Your task to perform on an android device: change notification settings in the gmail app Image 0: 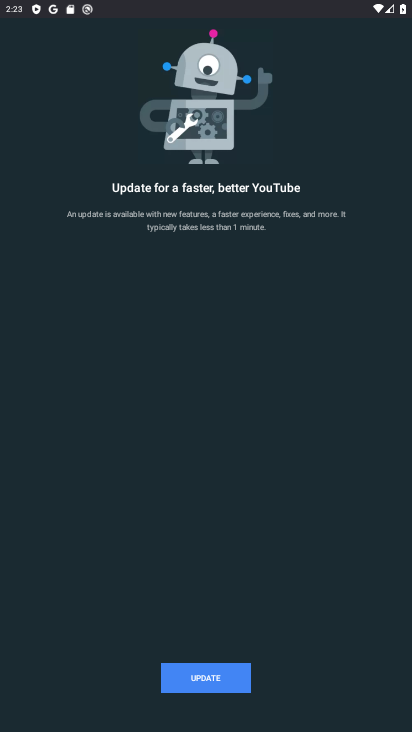
Step 0: press home button
Your task to perform on an android device: change notification settings in the gmail app Image 1: 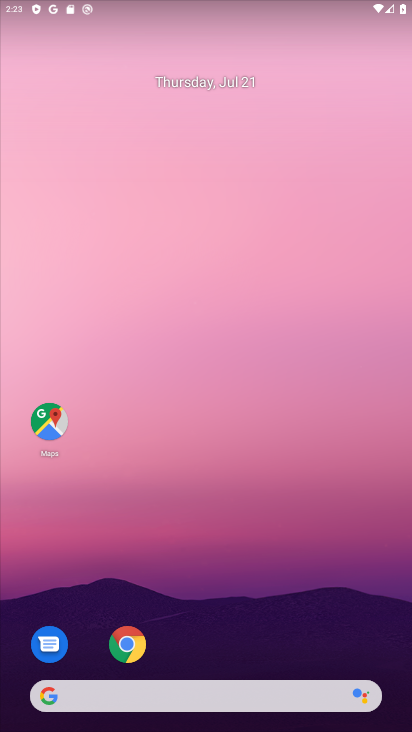
Step 1: drag from (317, 618) to (243, 218)
Your task to perform on an android device: change notification settings in the gmail app Image 2: 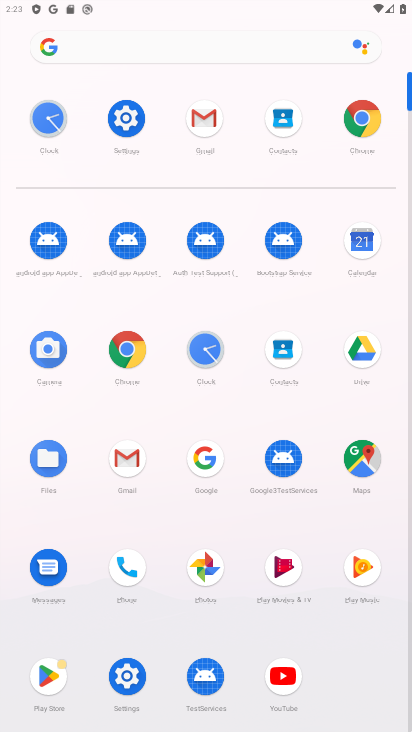
Step 2: click (198, 121)
Your task to perform on an android device: change notification settings in the gmail app Image 3: 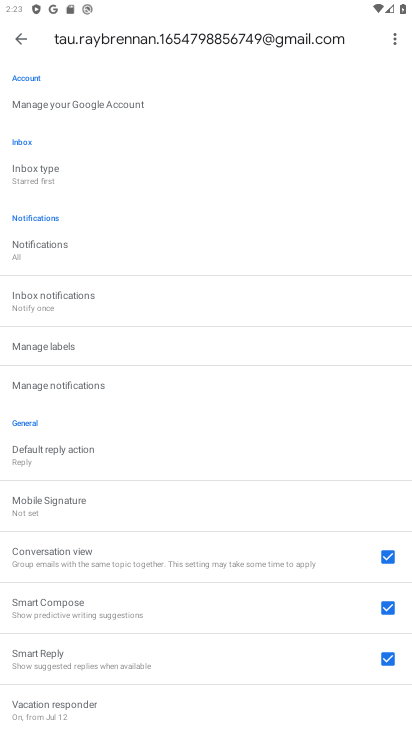
Step 3: click (96, 382)
Your task to perform on an android device: change notification settings in the gmail app Image 4: 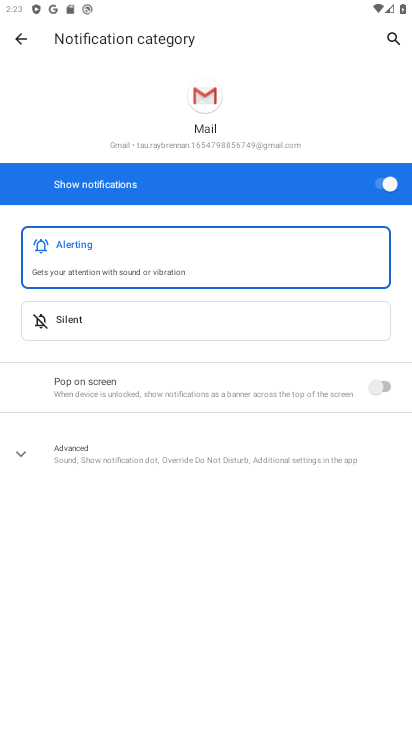
Step 4: click (355, 323)
Your task to perform on an android device: change notification settings in the gmail app Image 5: 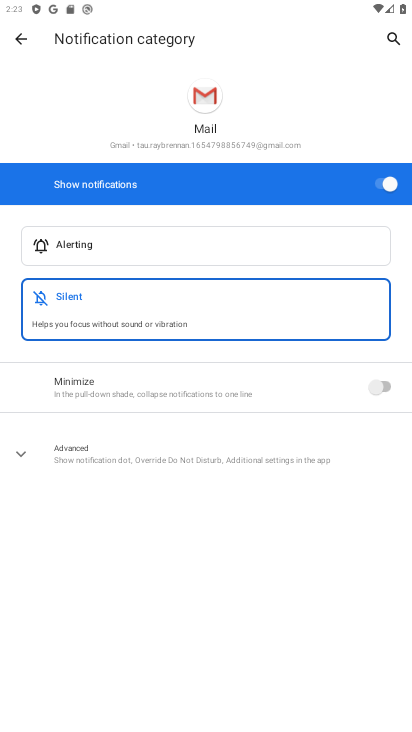
Step 5: click (389, 390)
Your task to perform on an android device: change notification settings in the gmail app Image 6: 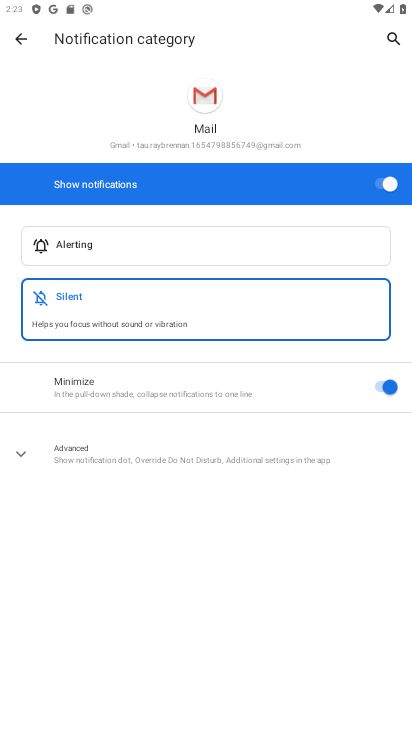
Step 6: task complete